Your task to perform on an android device: turn on data saver in the chrome app Image 0: 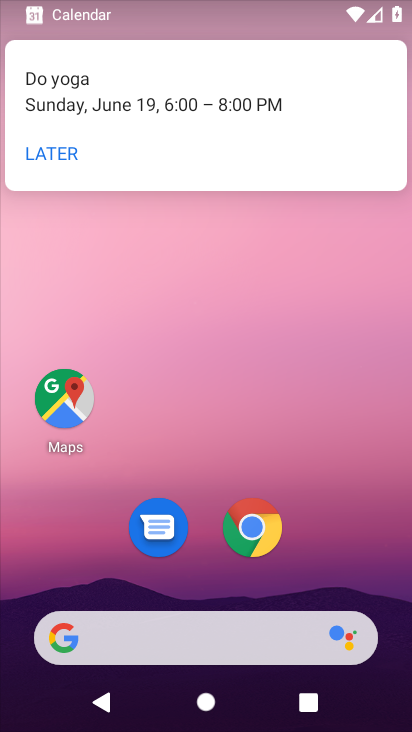
Step 0: drag from (345, 494) to (374, 2)
Your task to perform on an android device: turn on data saver in the chrome app Image 1: 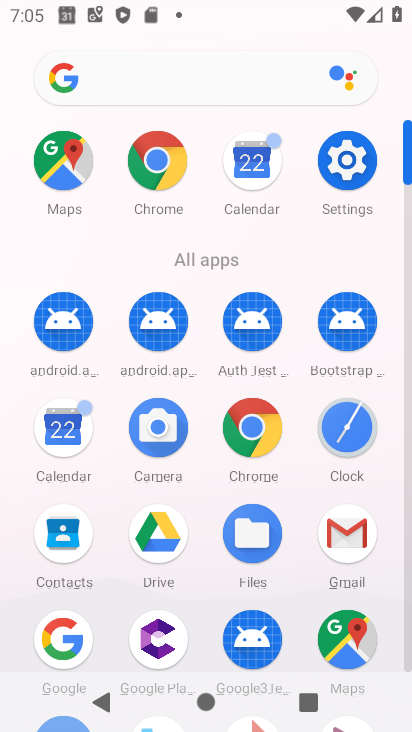
Step 1: click (272, 455)
Your task to perform on an android device: turn on data saver in the chrome app Image 2: 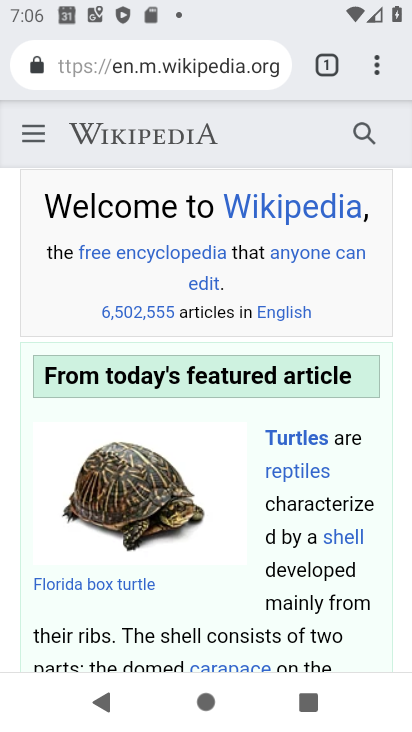
Step 2: click (368, 67)
Your task to perform on an android device: turn on data saver in the chrome app Image 3: 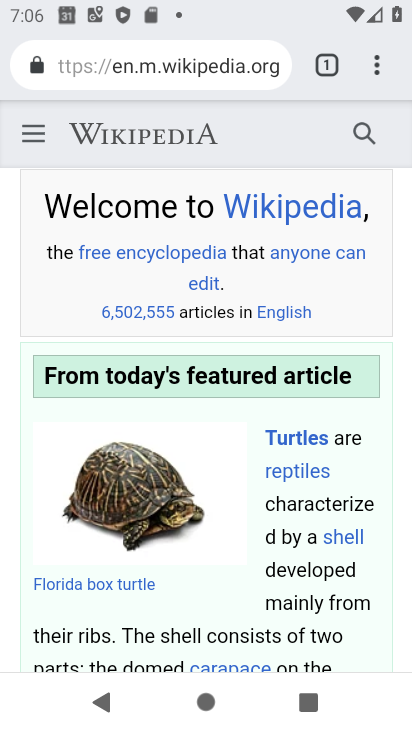
Step 3: drag from (377, 59) to (167, 565)
Your task to perform on an android device: turn on data saver in the chrome app Image 4: 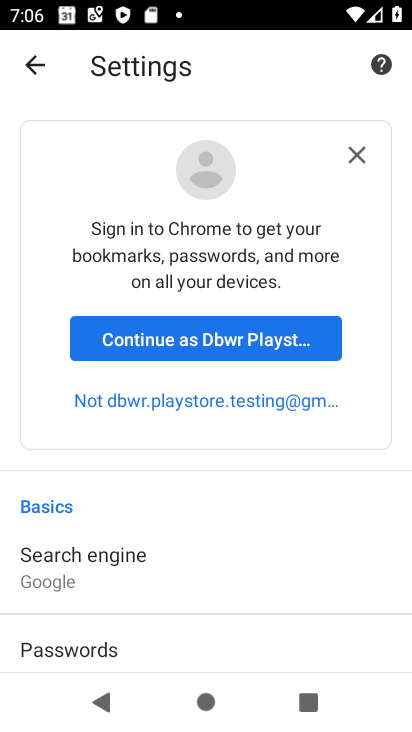
Step 4: drag from (187, 611) to (280, 113)
Your task to perform on an android device: turn on data saver in the chrome app Image 5: 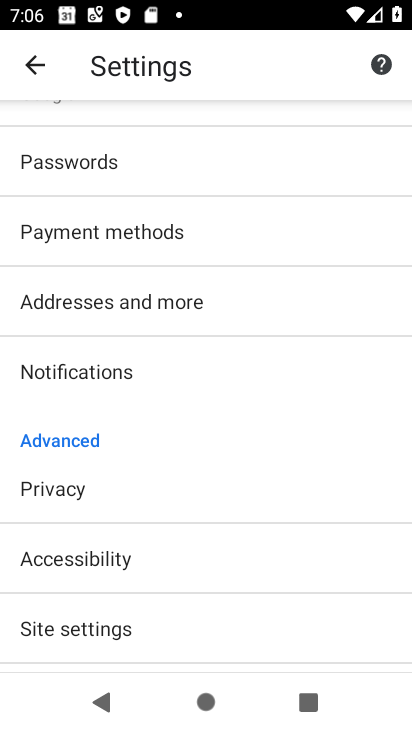
Step 5: drag from (200, 605) to (283, 134)
Your task to perform on an android device: turn on data saver in the chrome app Image 6: 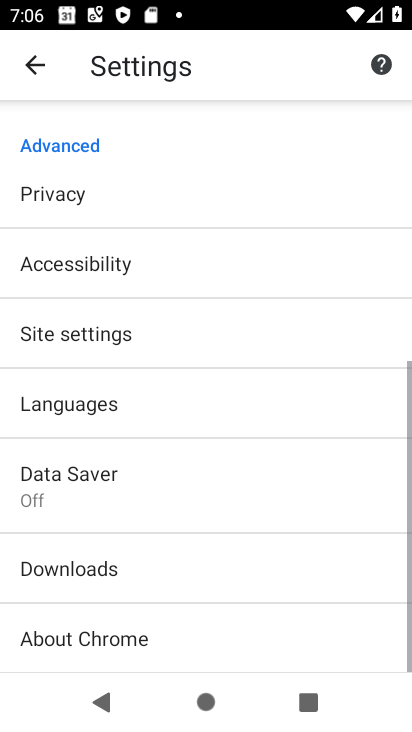
Step 6: click (167, 499)
Your task to perform on an android device: turn on data saver in the chrome app Image 7: 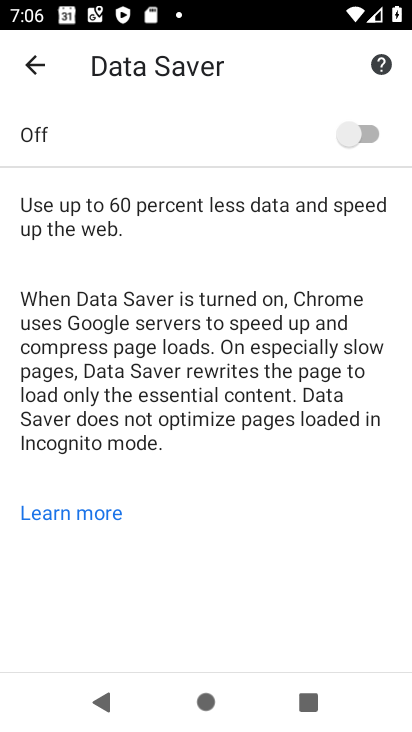
Step 7: click (342, 143)
Your task to perform on an android device: turn on data saver in the chrome app Image 8: 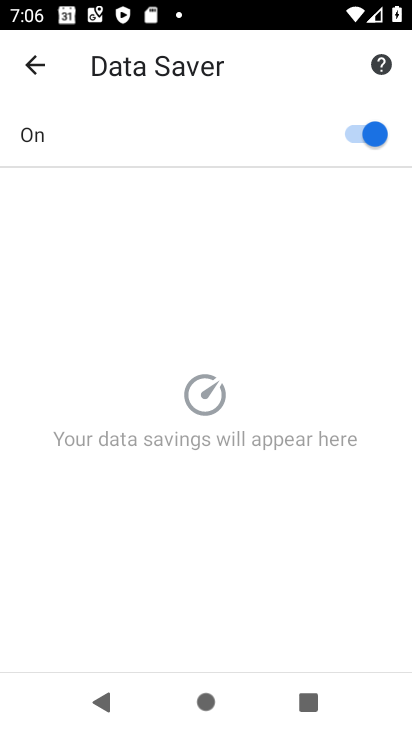
Step 8: task complete